Your task to perform on an android device: change notification settings in the gmail app Image 0: 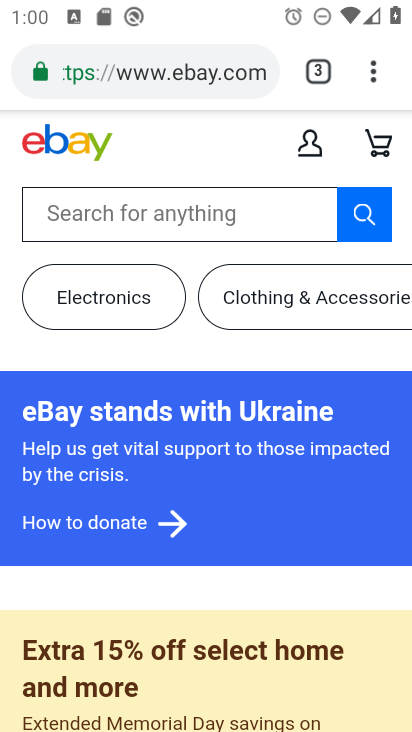
Step 0: task complete